Your task to perform on an android device: empty trash in the gmail app Image 0: 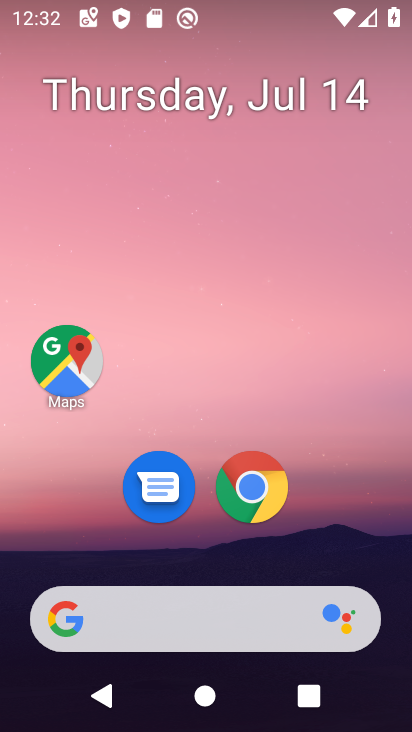
Step 0: drag from (239, 647) to (224, 129)
Your task to perform on an android device: empty trash in the gmail app Image 1: 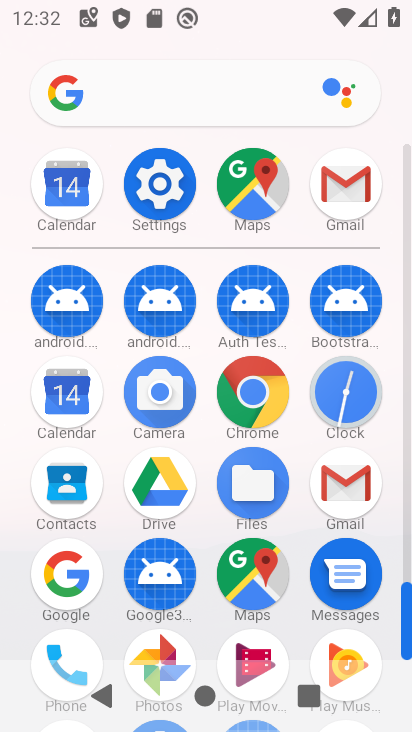
Step 1: click (356, 499)
Your task to perform on an android device: empty trash in the gmail app Image 2: 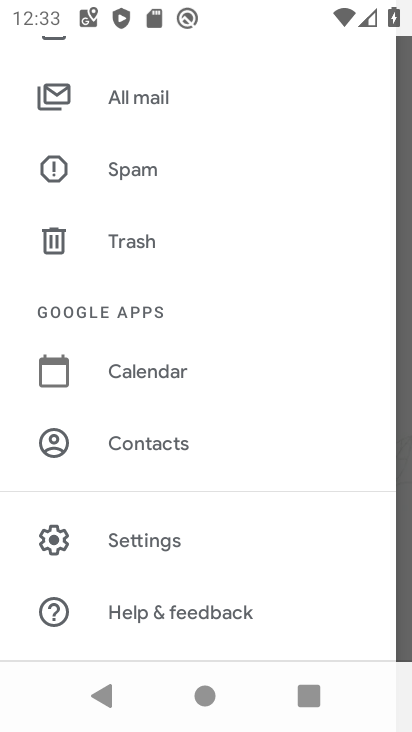
Step 2: click (111, 242)
Your task to perform on an android device: empty trash in the gmail app Image 3: 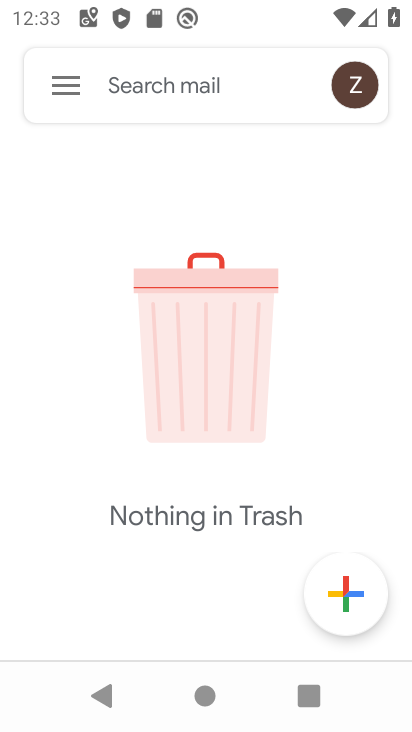
Step 3: task complete